Your task to perform on an android device: turn pop-ups off in chrome Image 0: 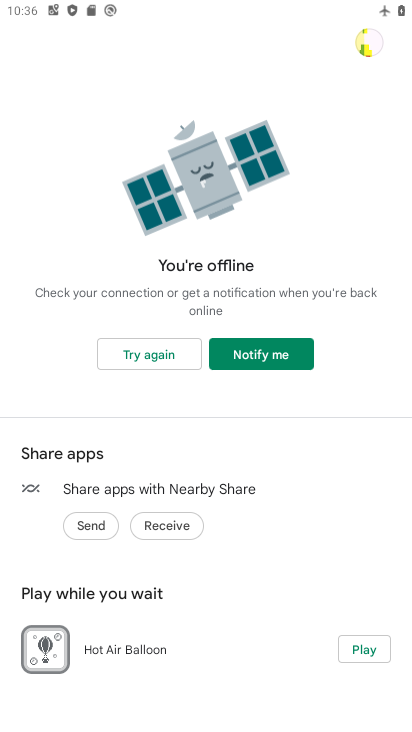
Step 0: press back button
Your task to perform on an android device: turn pop-ups off in chrome Image 1: 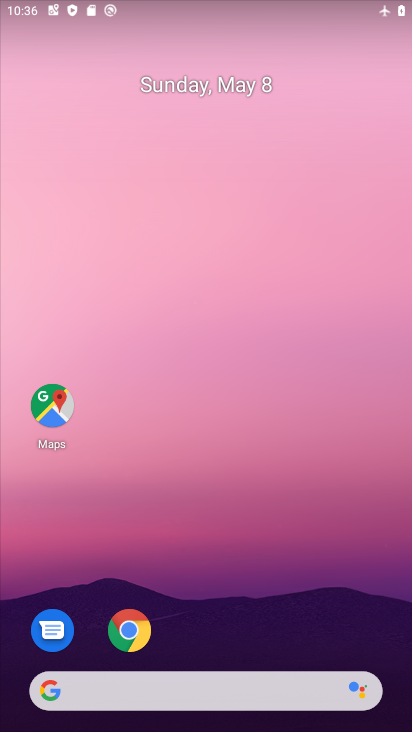
Step 1: click (131, 637)
Your task to perform on an android device: turn pop-ups off in chrome Image 2: 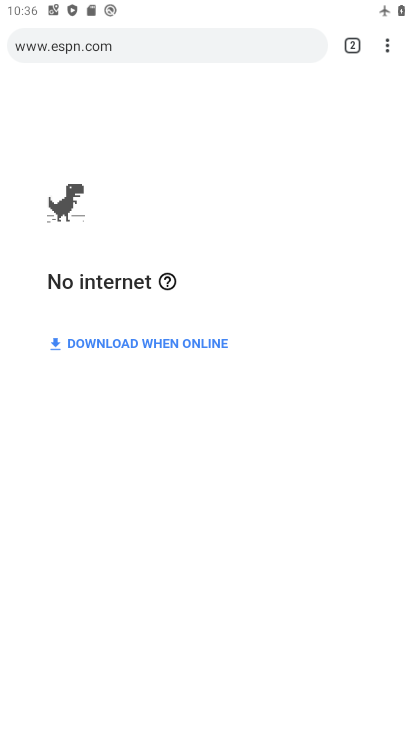
Step 2: click (393, 40)
Your task to perform on an android device: turn pop-ups off in chrome Image 3: 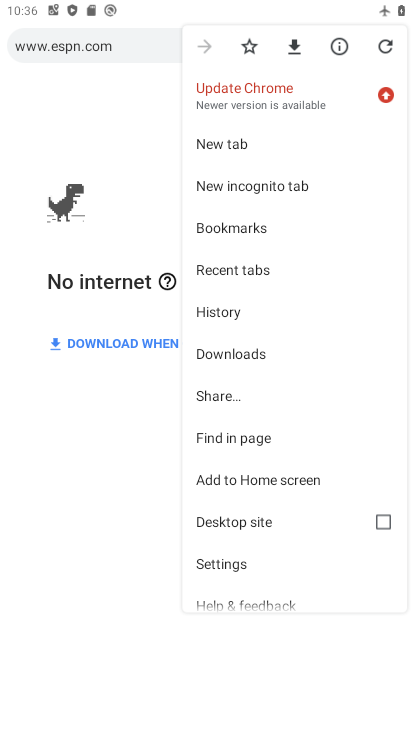
Step 3: click (262, 550)
Your task to perform on an android device: turn pop-ups off in chrome Image 4: 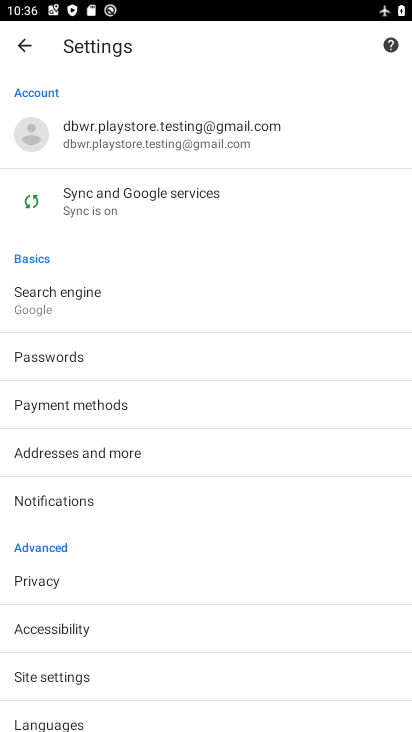
Step 4: drag from (106, 659) to (212, 315)
Your task to perform on an android device: turn pop-ups off in chrome Image 5: 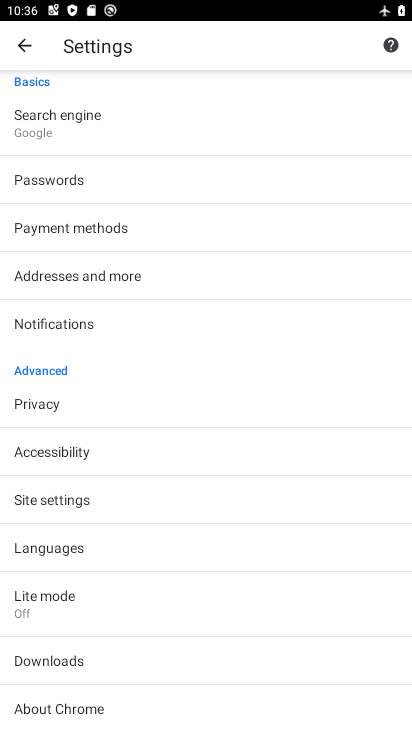
Step 5: click (135, 497)
Your task to perform on an android device: turn pop-ups off in chrome Image 6: 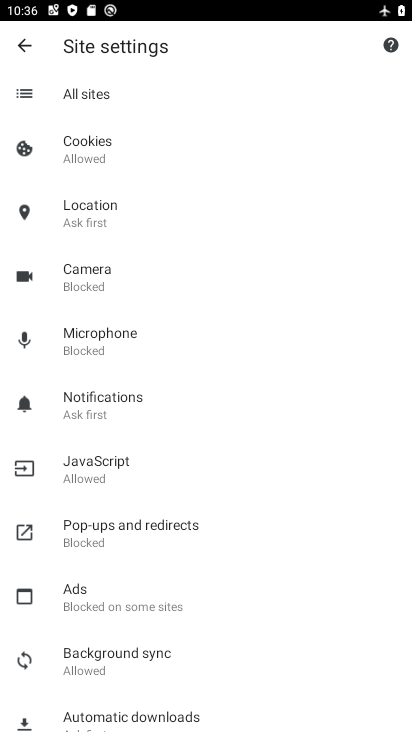
Step 6: click (131, 545)
Your task to perform on an android device: turn pop-ups off in chrome Image 7: 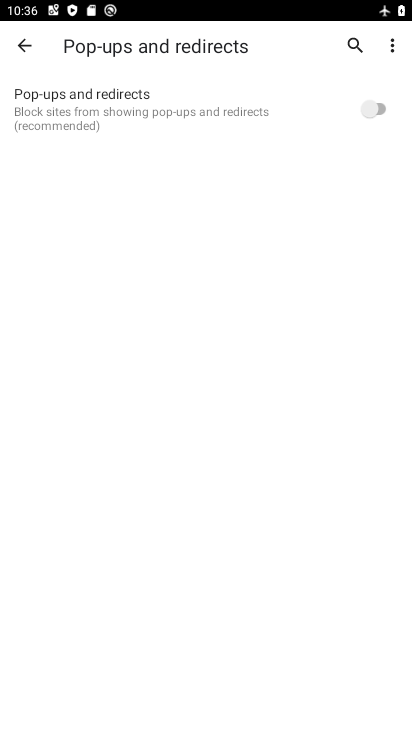
Step 7: task complete